Your task to perform on an android device: Go to Wikipedia Image 0: 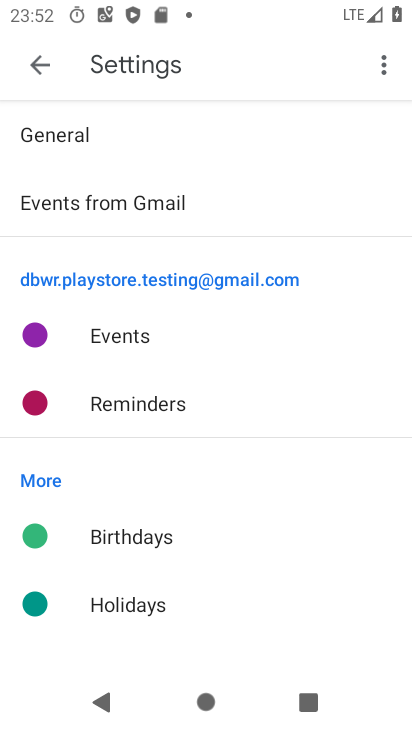
Step 0: press home button
Your task to perform on an android device: Go to Wikipedia Image 1: 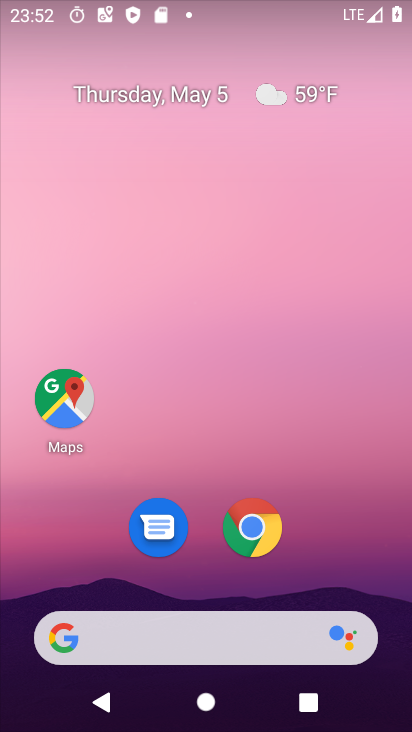
Step 1: drag from (215, 573) to (228, 37)
Your task to perform on an android device: Go to Wikipedia Image 2: 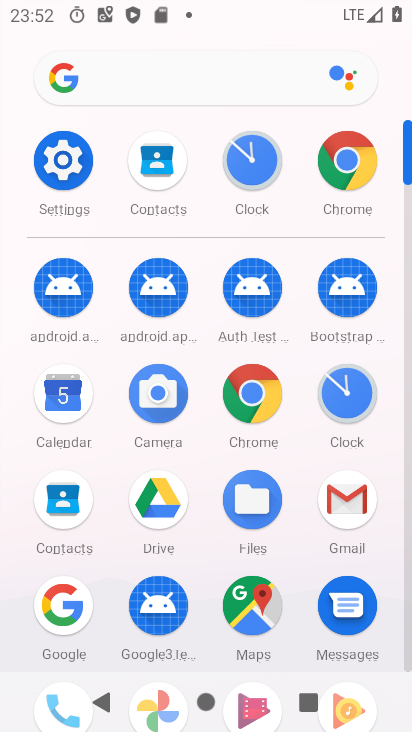
Step 2: click (340, 180)
Your task to perform on an android device: Go to Wikipedia Image 3: 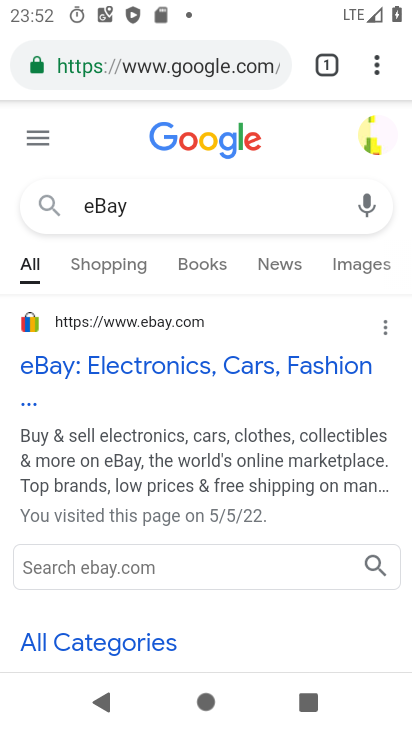
Step 3: click (163, 191)
Your task to perform on an android device: Go to Wikipedia Image 4: 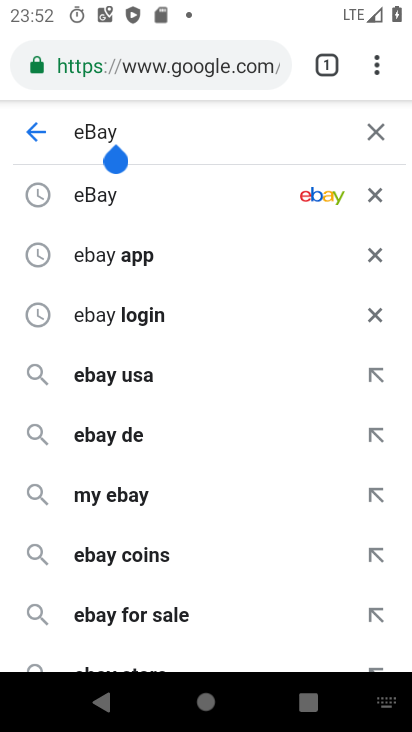
Step 4: click (193, 59)
Your task to perform on an android device: Go to Wikipedia Image 5: 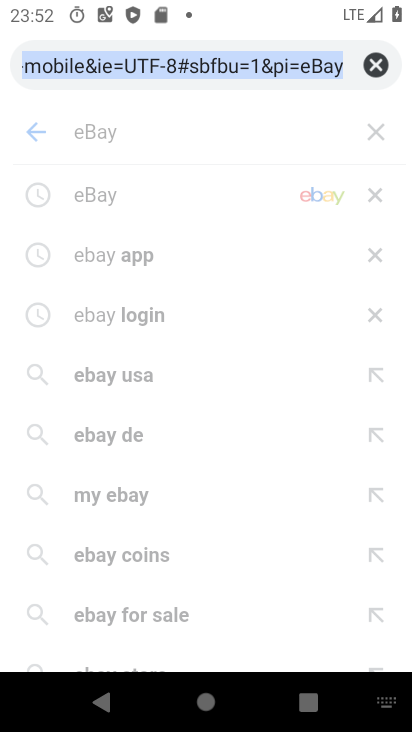
Step 5: type "wikipedia."
Your task to perform on an android device: Go to Wikipedia Image 6: 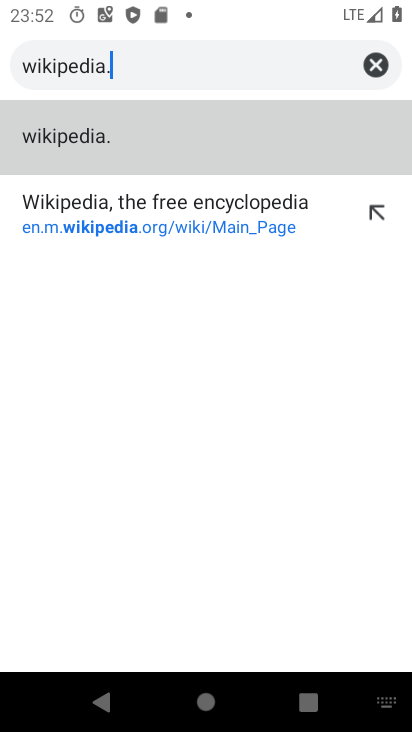
Step 6: click (106, 210)
Your task to perform on an android device: Go to Wikipedia Image 7: 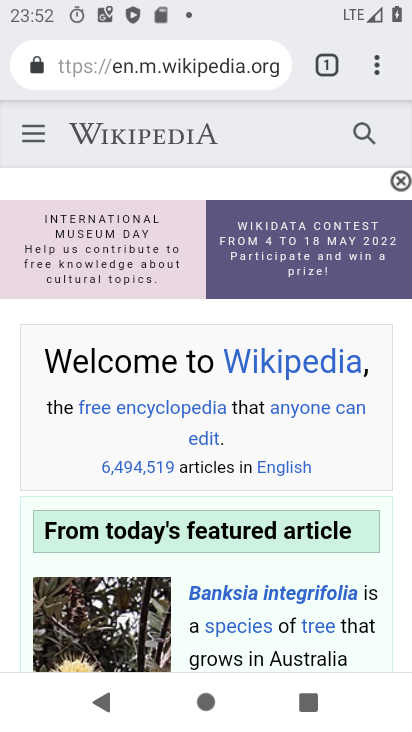
Step 7: task complete